Your task to perform on an android device: visit the assistant section in the google photos Image 0: 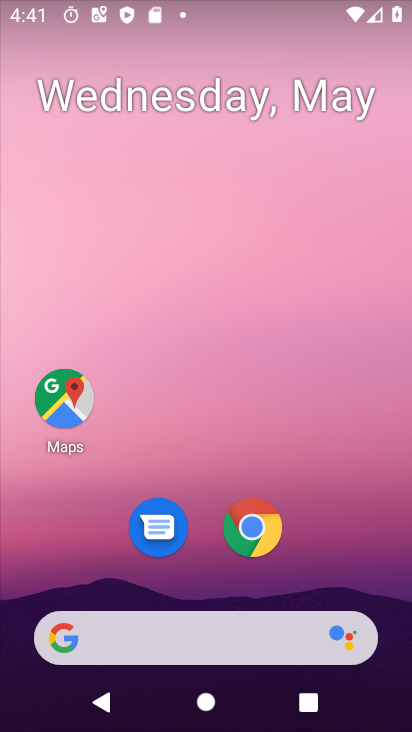
Step 0: drag from (251, 475) to (259, 89)
Your task to perform on an android device: visit the assistant section in the google photos Image 1: 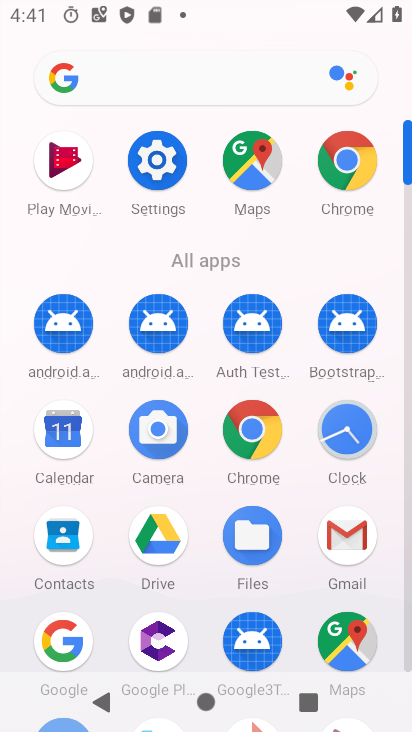
Step 1: drag from (288, 206) to (305, 20)
Your task to perform on an android device: visit the assistant section in the google photos Image 2: 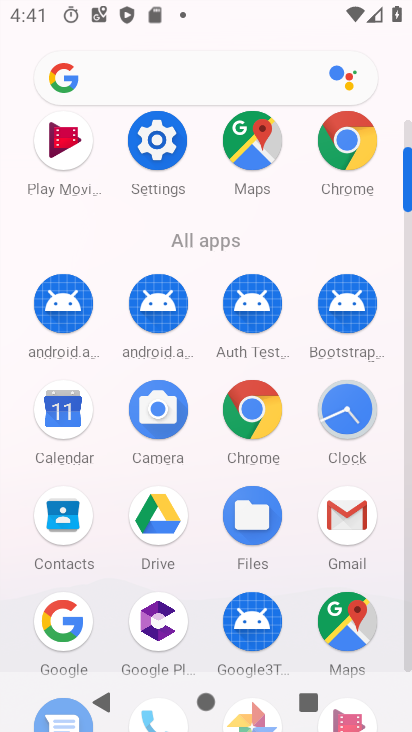
Step 2: drag from (300, 307) to (285, 72)
Your task to perform on an android device: visit the assistant section in the google photos Image 3: 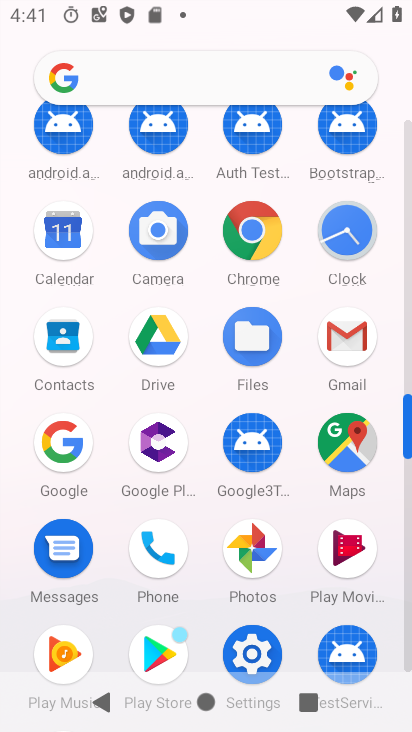
Step 3: click (251, 553)
Your task to perform on an android device: visit the assistant section in the google photos Image 4: 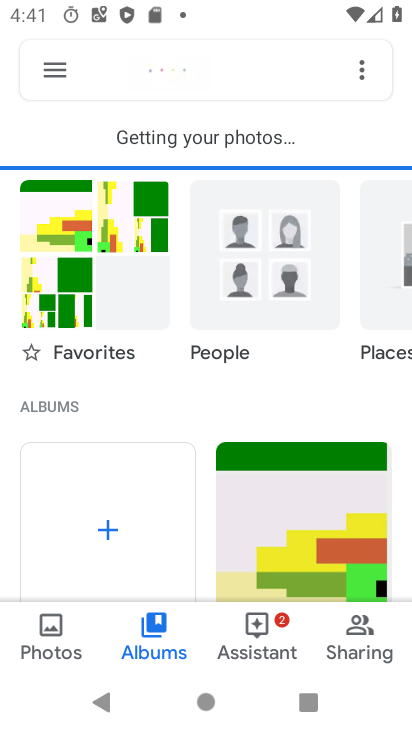
Step 4: click (260, 634)
Your task to perform on an android device: visit the assistant section in the google photos Image 5: 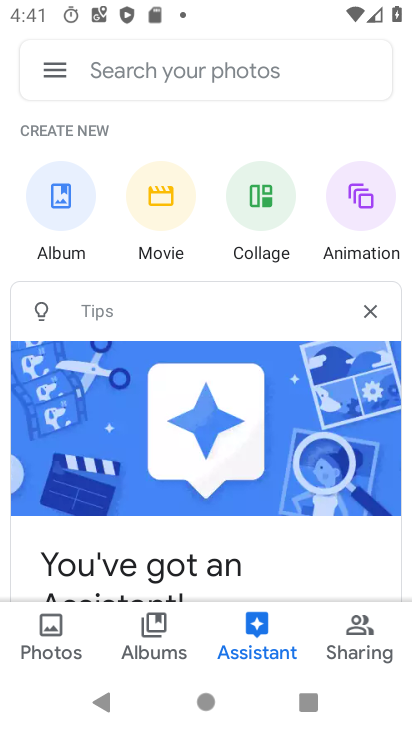
Step 5: task complete